Your task to perform on an android device: Go to network settings Image 0: 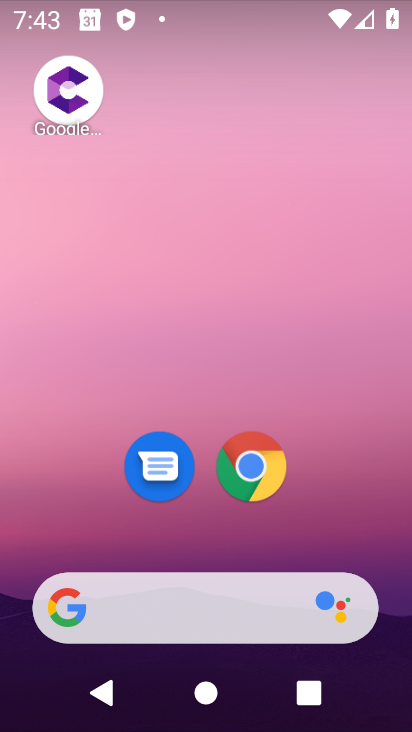
Step 0: press home button
Your task to perform on an android device: Go to network settings Image 1: 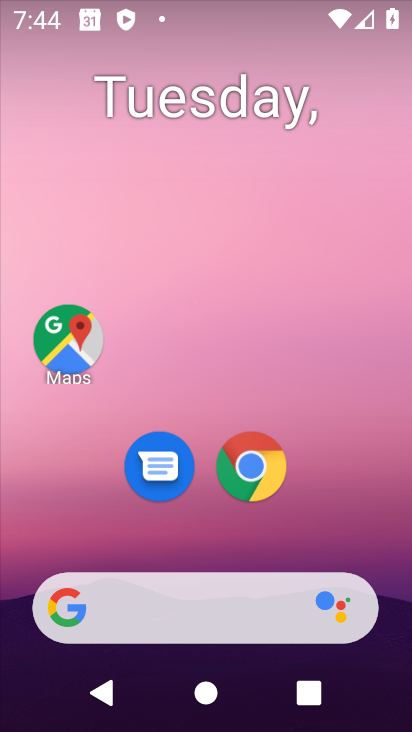
Step 1: drag from (55, 535) to (307, 15)
Your task to perform on an android device: Go to network settings Image 2: 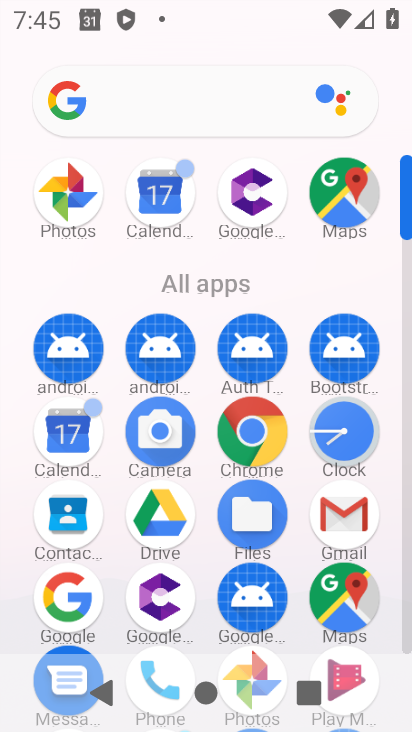
Step 2: drag from (158, 633) to (350, 166)
Your task to perform on an android device: Go to network settings Image 3: 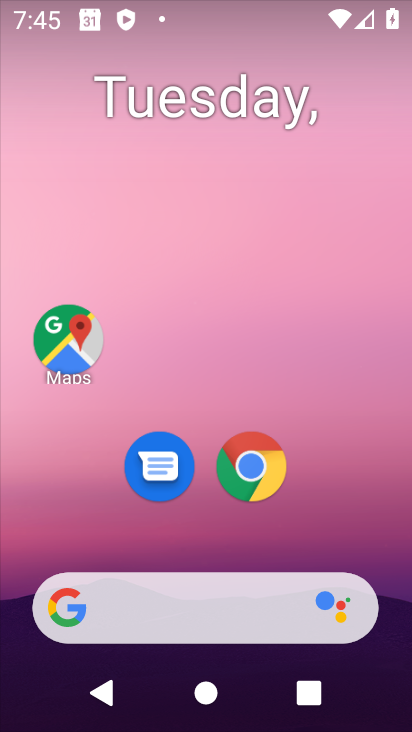
Step 3: drag from (11, 500) to (297, 111)
Your task to perform on an android device: Go to network settings Image 4: 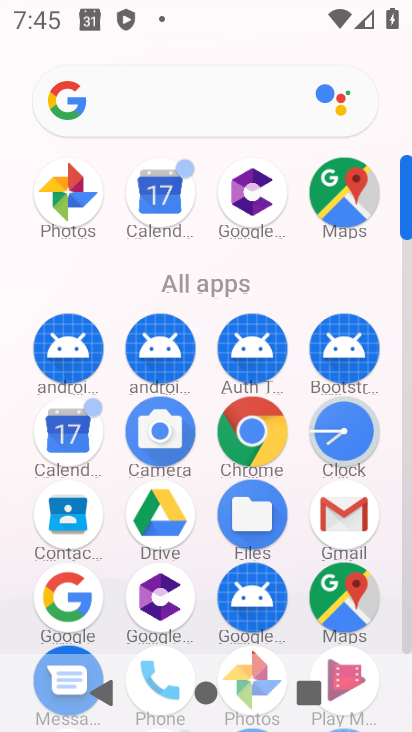
Step 4: drag from (24, 539) to (226, 171)
Your task to perform on an android device: Go to network settings Image 5: 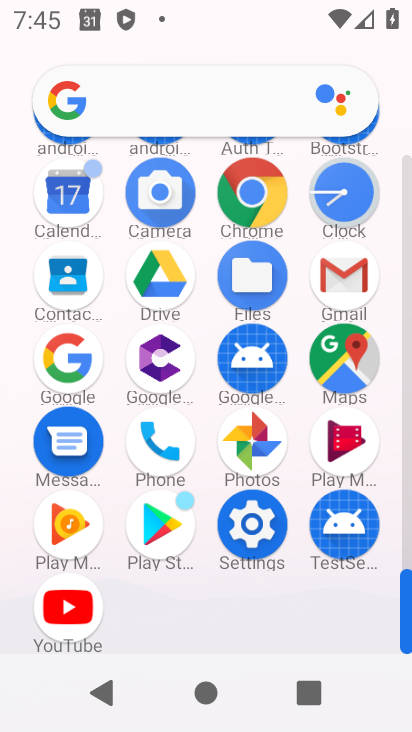
Step 5: click (238, 540)
Your task to perform on an android device: Go to network settings Image 6: 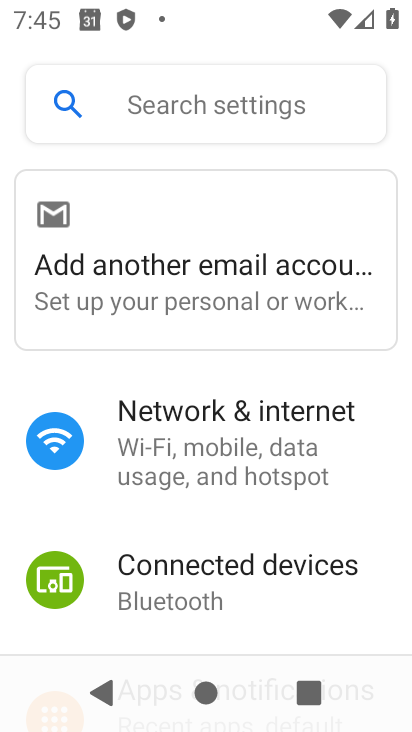
Step 6: click (188, 428)
Your task to perform on an android device: Go to network settings Image 7: 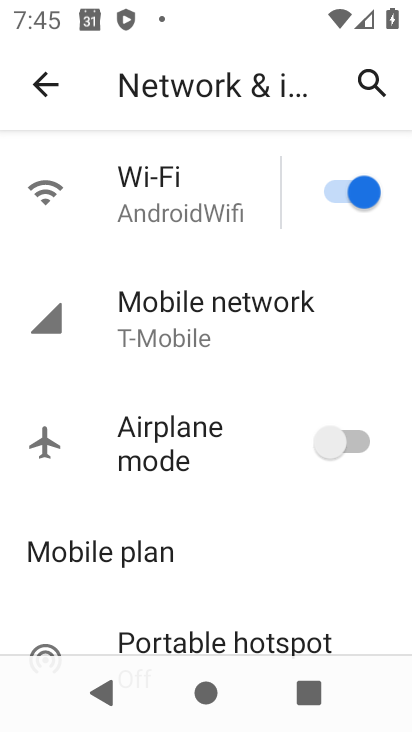
Step 7: click (122, 343)
Your task to perform on an android device: Go to network settings Image 8: 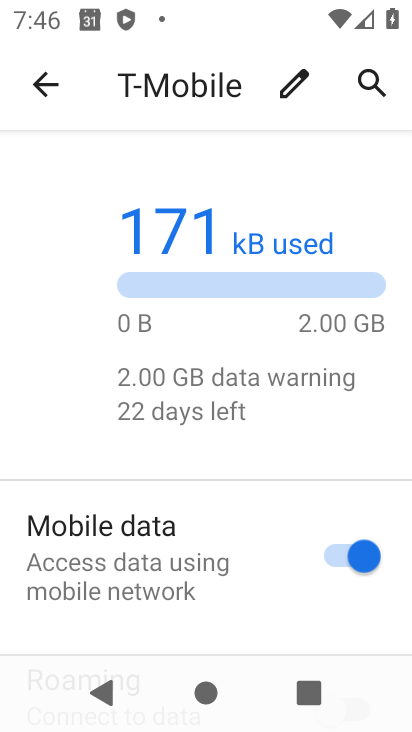
Step 8: task complete